Your task to perform on an android device: Open my contact list Image 0: 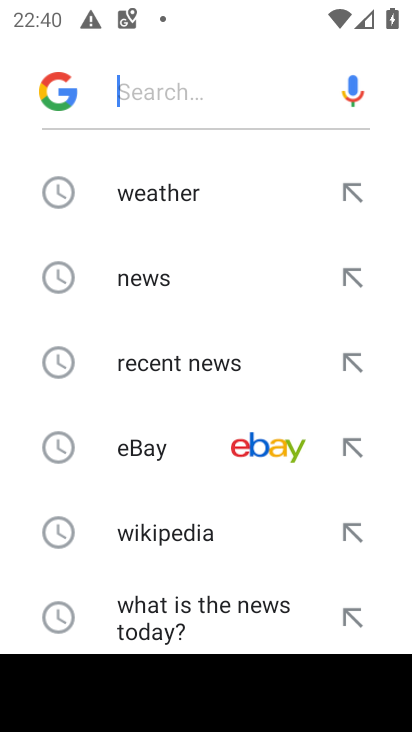
Step 0: press home button
Your task to perform on an android device: Open my contact list Image 1: 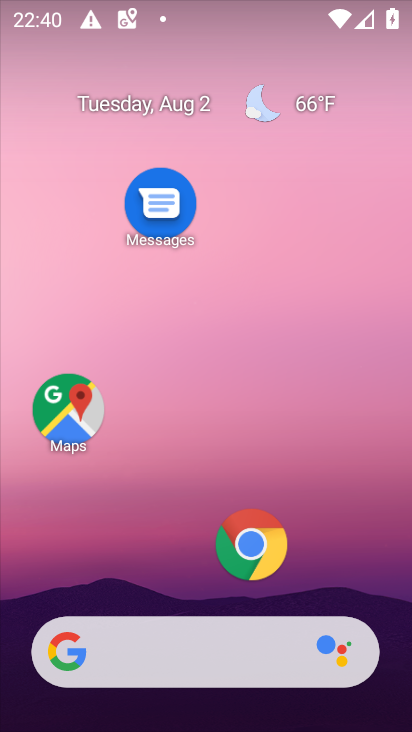
Step 1: drag from (175, 565) to (177, 216)
Your task to perform on an android device: Open my contact list Image 2: 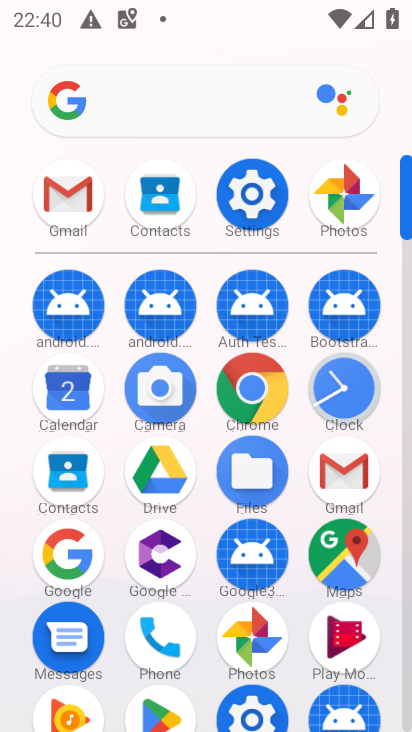
Step 2: click (79, 491)
Your task to perform on an android device: Open my contact list Image 3: 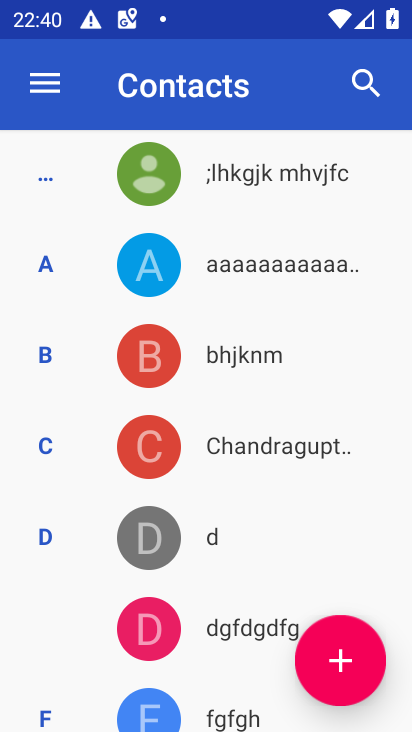
Step 3: task complete